Your task to perform on an android device: See recent photos Image 0: 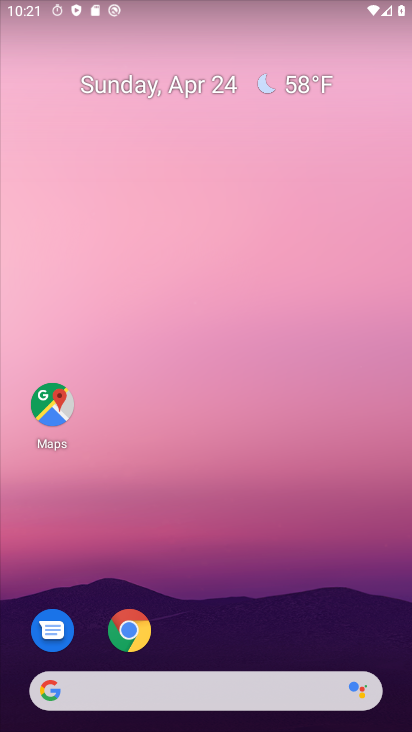
Step 0: drag from (250, 643) to (292, 364)
Your task to perform on an android device: See recent photos Image 1: 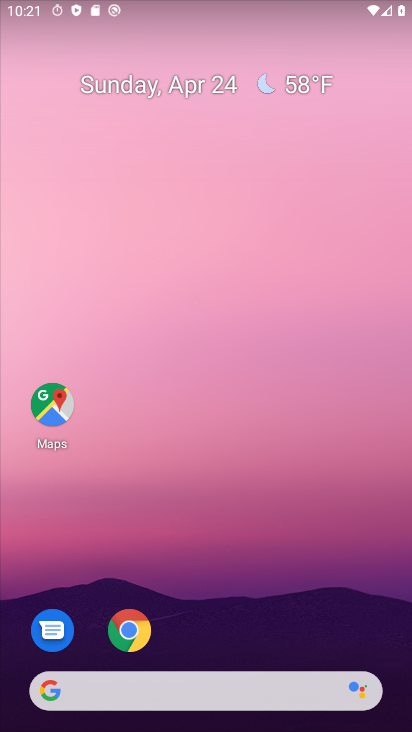
Step 1: drag from (213, 641) to (291, 293)
Your task to perform on an android device: See recent photos Image 2: 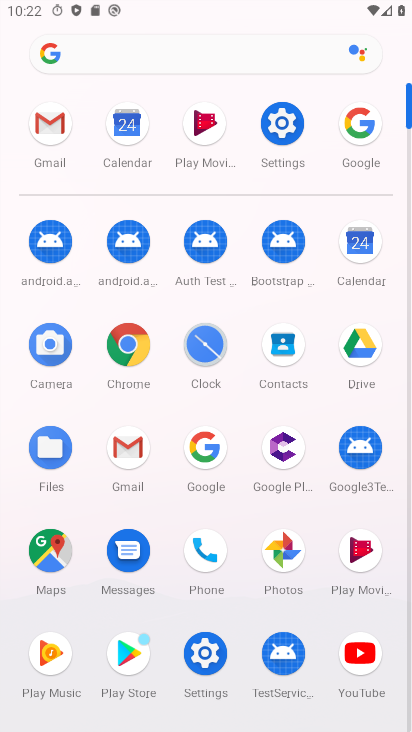
Step 2: click (292, 567)
Your task to perform on an android device: See recent photos Image 3: 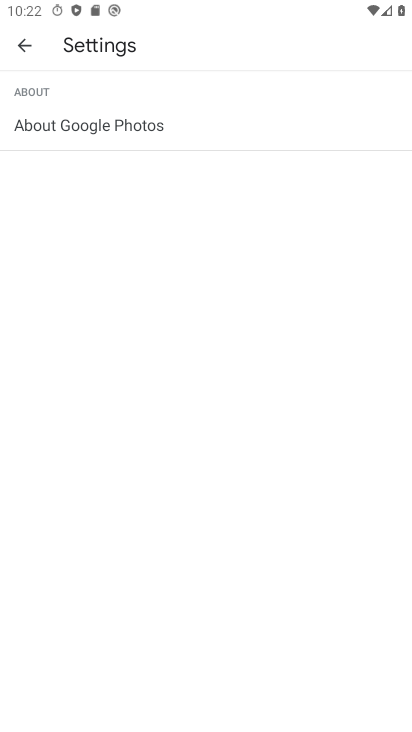
Step 3: click (17, 48)
Your task to perform on an android device: See recent photos Image 4: 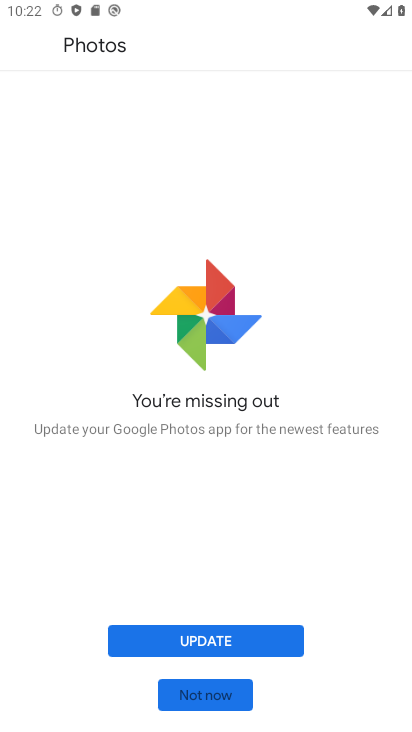
Step 4: click (199, 699)
Your task to perform on an android device: See recent photos Image 5: 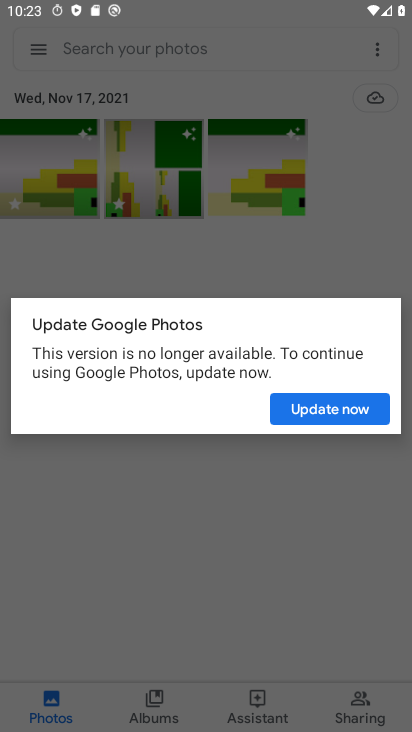
Step 5: task complete